Your task to perform on an android device: open wifi settings Image 0: 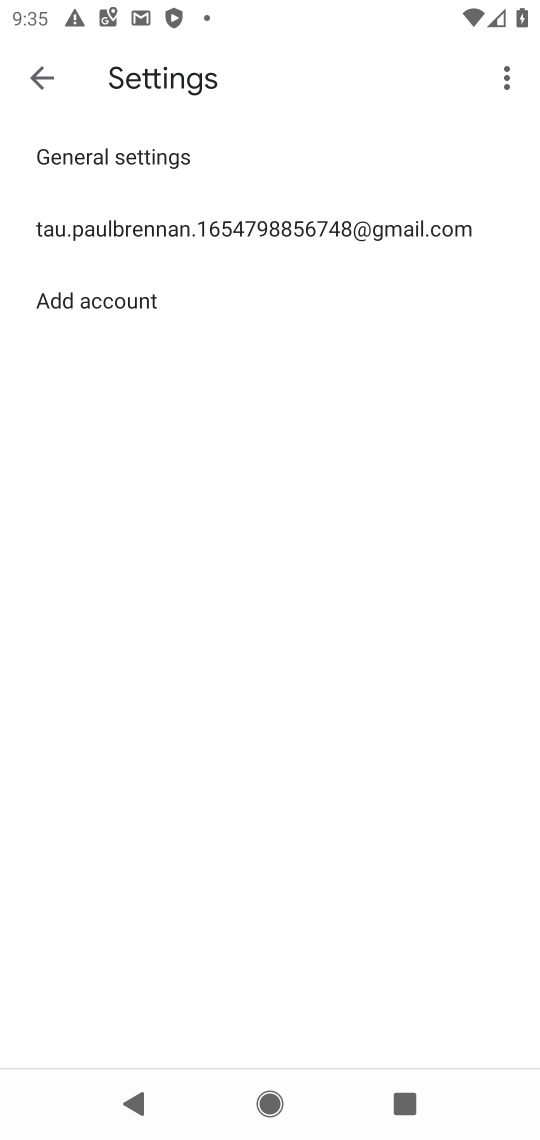
Step 0: press home button
Your task to perform on an android device: open wifi settings Image 1: 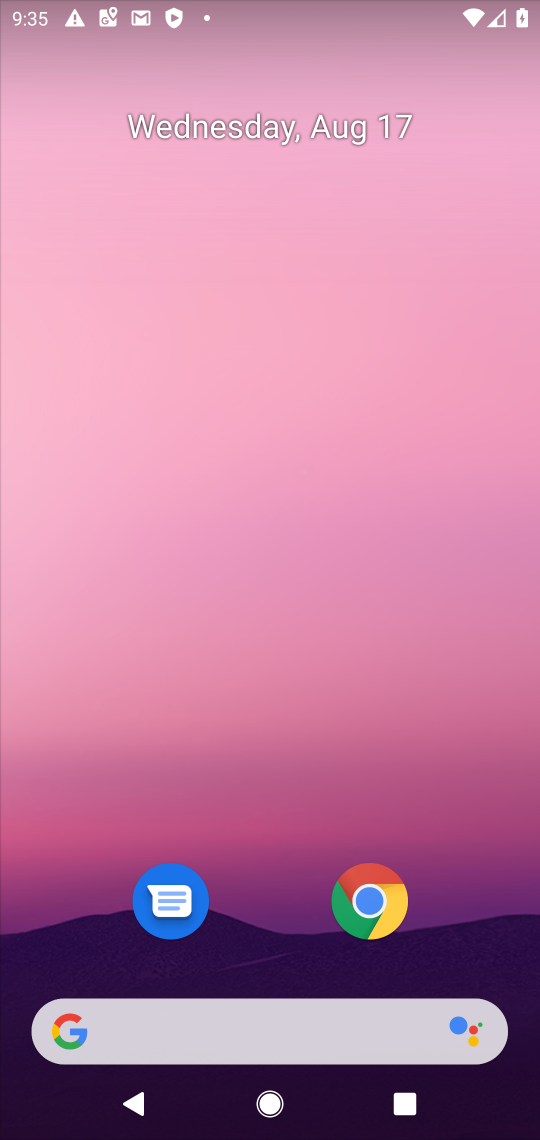
Step 1: drag from (262, 923) to (297, 0)
Your task to perform on an android device: open wifi settings Image 2: 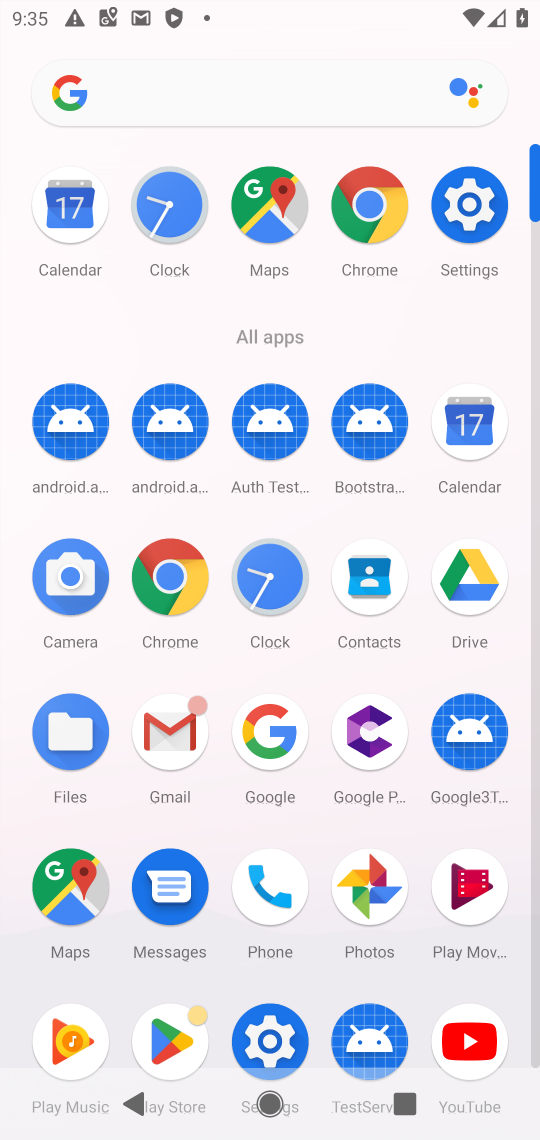
Step 2: click (279, 1044)
Your task to perform on an android device: open wifi settings Image 3: 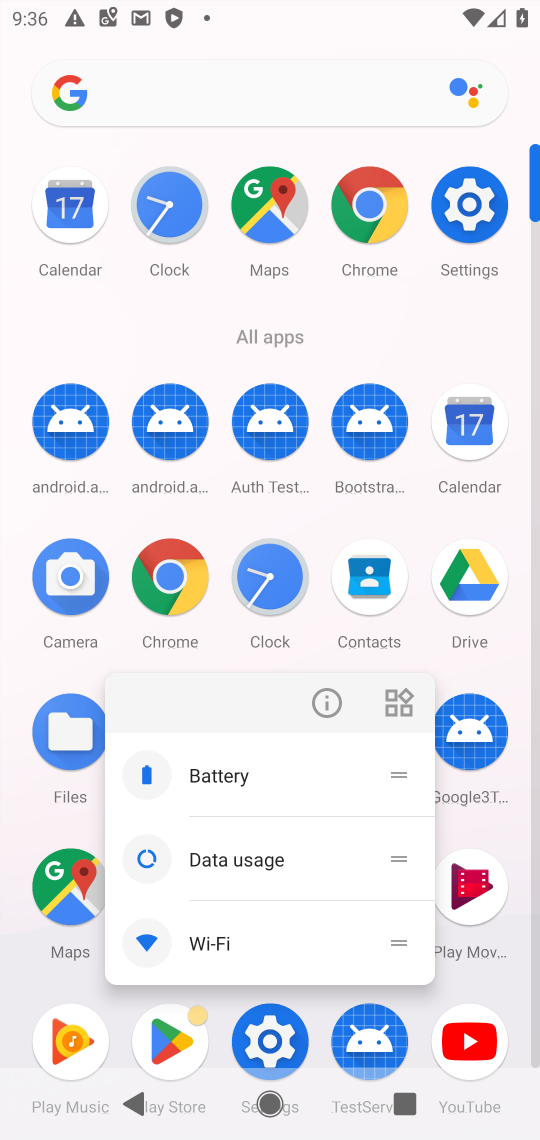
Step 3: click (275, 1044)
Your task to perform on an android device: open wifi settings Image 4: 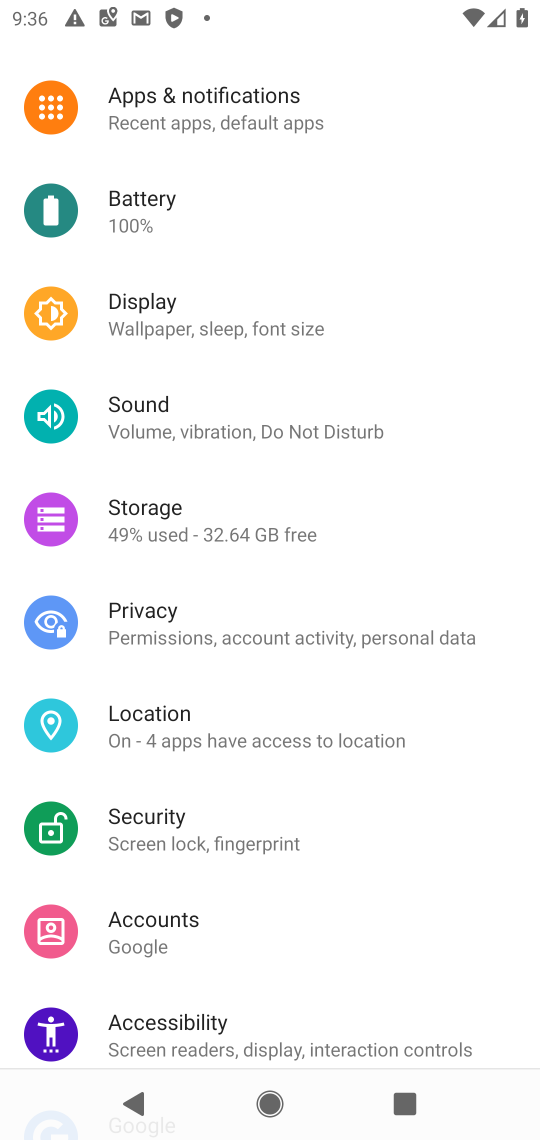
Step 4: drag from (291, 227) to (252, 980)
Your task to perform on an android device: open wifi settings Image 5: 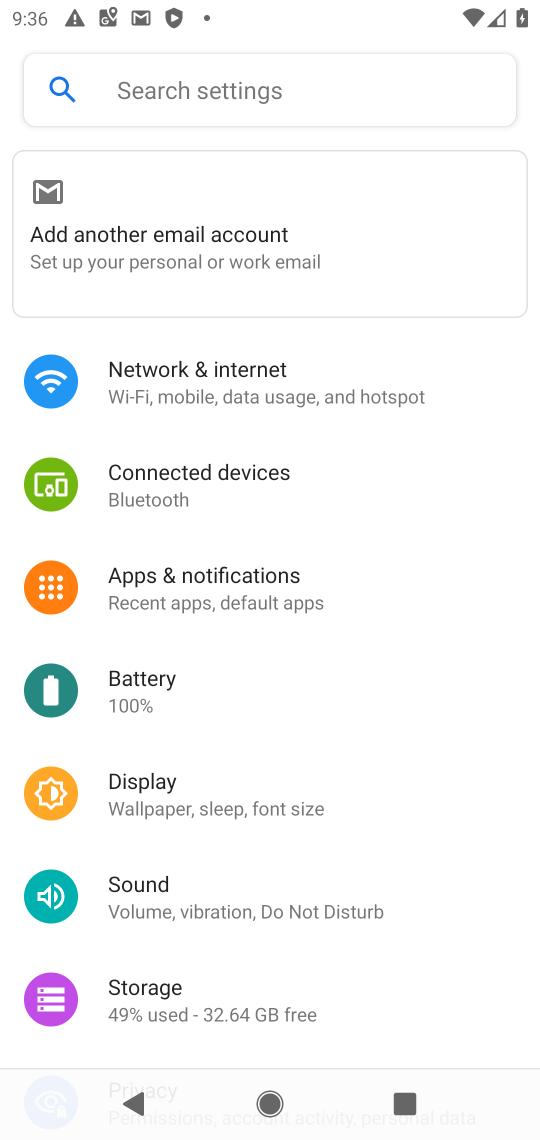
Step 5: click (204, 392)
Your task to perform on an android device: open wifi settings Image 6: 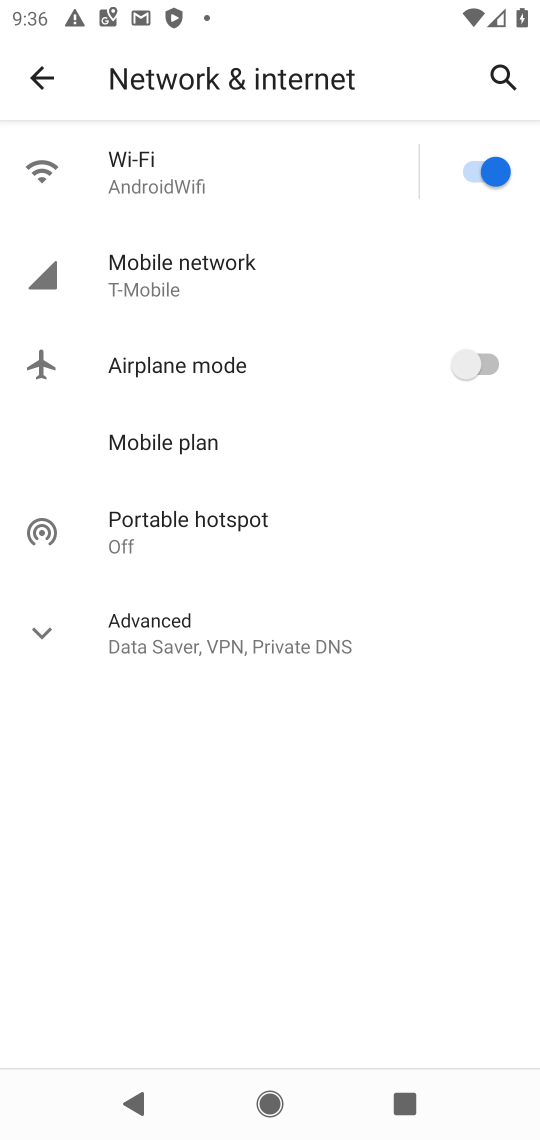
Step 6: click (261, 164)
Your task to perform on an android device: open wifi settings Image 7: 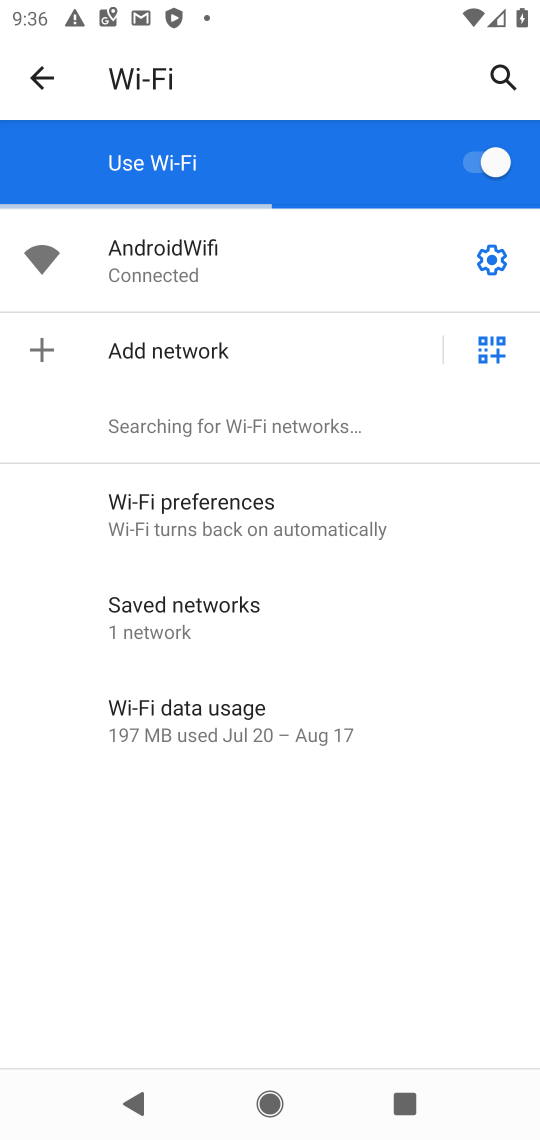
Step 7: click (493, 230)
Your task to perform on an android device: open wifi settings Image 8: 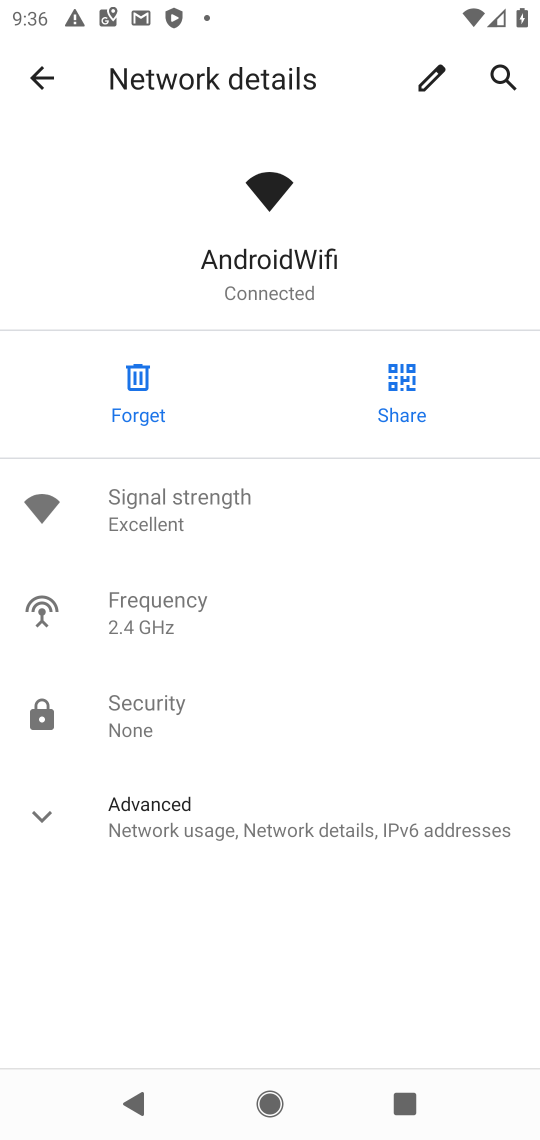
Step 8: task complete